Your task to perform on an android device: Show me productivity apps on the Play Store Image 0: 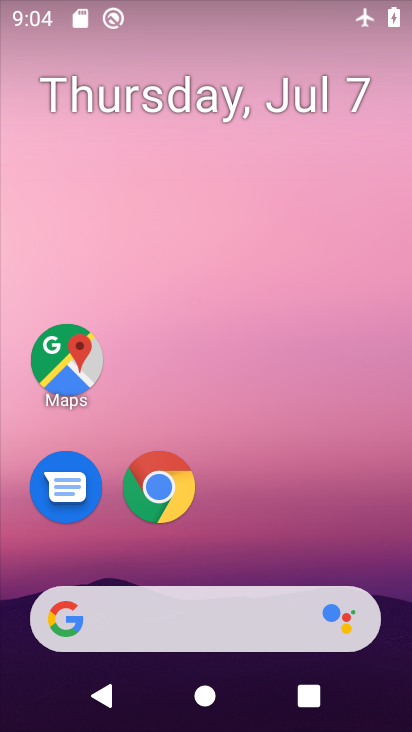
Step 0: drag from (371, 533) to (348, 103)
Your task to perform on an android device: Show me productivity apps on the Play Store Image 1: 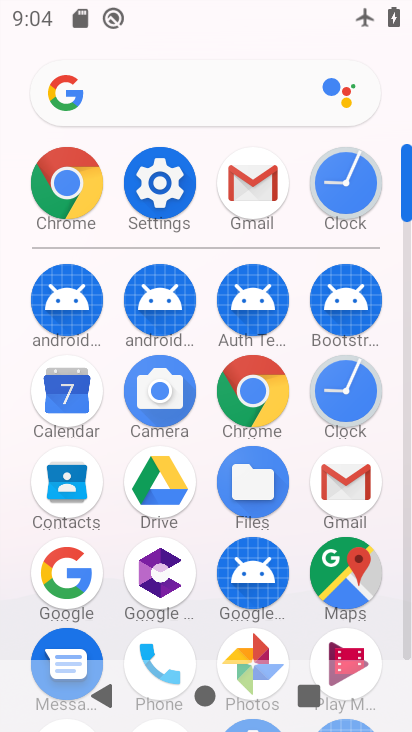
Step 1: drag from (390, 444) to (404, 168)
Your task to perform on an android device: Show me productivity apps on the Play Store Image 2: 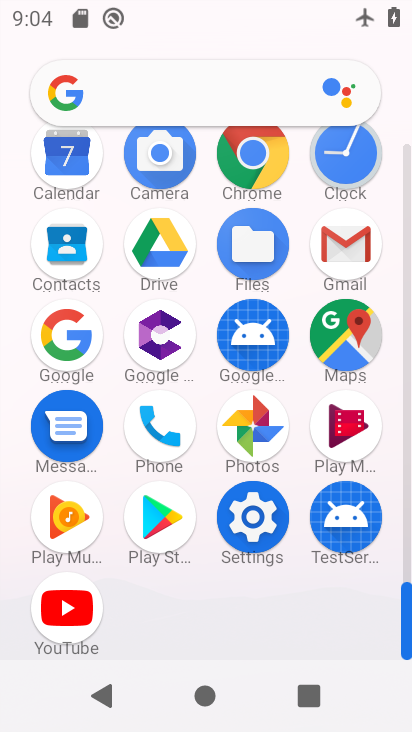
Step 2: click (169, 508)
Your task to perform on an android device: Show me productivity apps on the Play Store Image 3: 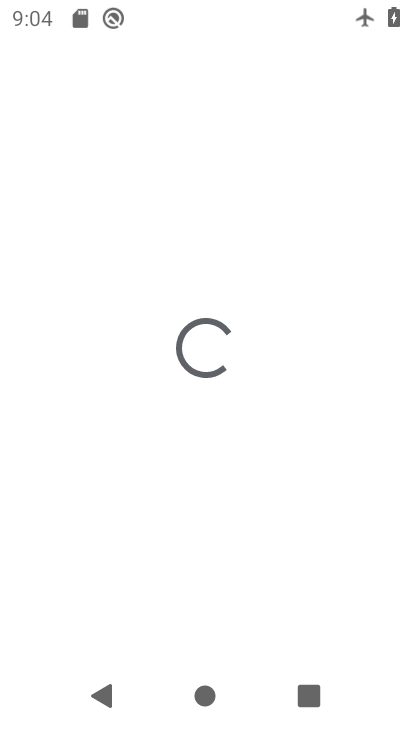
Step 3: task complete